Your task to perform on an android device: choose inbox layout in the gmail app Image 0: 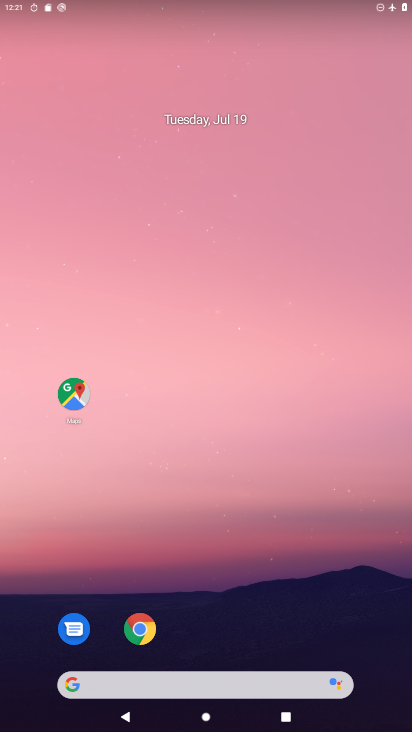
Step 0: drag from (325, 613) to (247, 117)
Your task to perform on an android device: choose inbox layout in the gmail app Image 1: 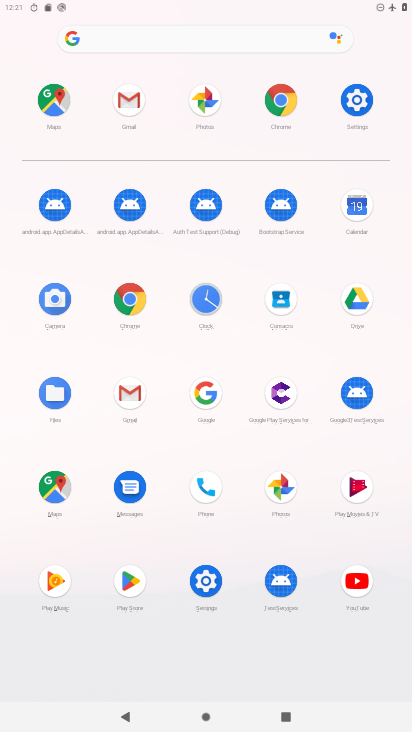
Step 1: click (120, 104)
Your task to perform on an android device: choose inbox layout in the gmail app Image 2: 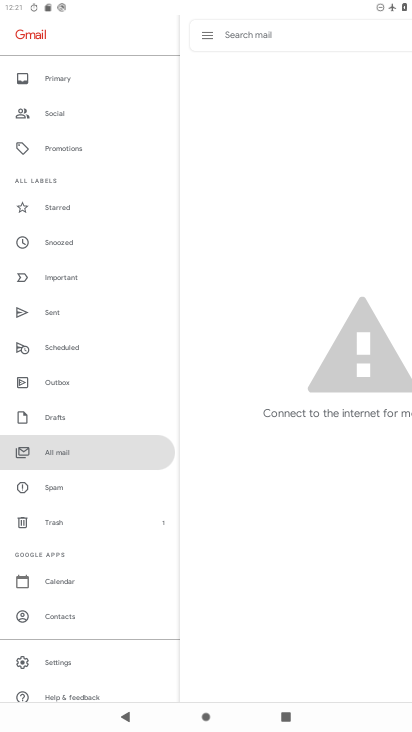
Step 2: click (59, 659)
Your task to perform on an android device: choose inbox layout in the gmail app Image 3: 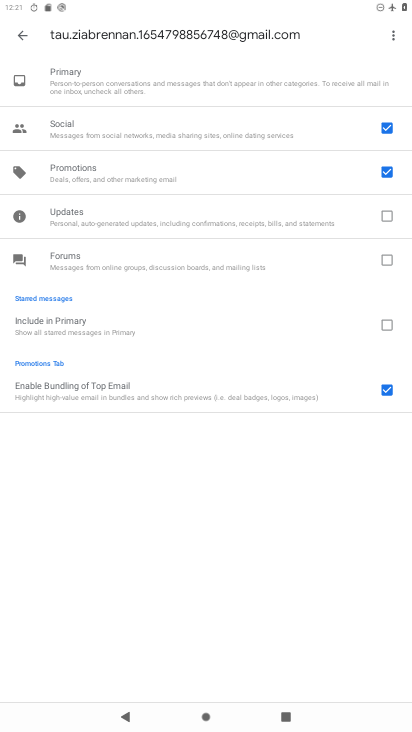
Step 3: click (29, 34)
Your task to perform on an android device: choose inbox layout in the gmail app Image 4: 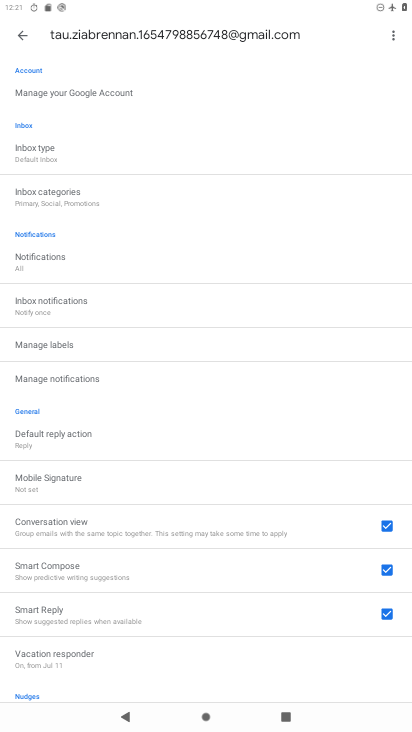
Step 4: click (51, 160)
Your task to perform on an android device: choose inbox layout in the gmail app Image 5: 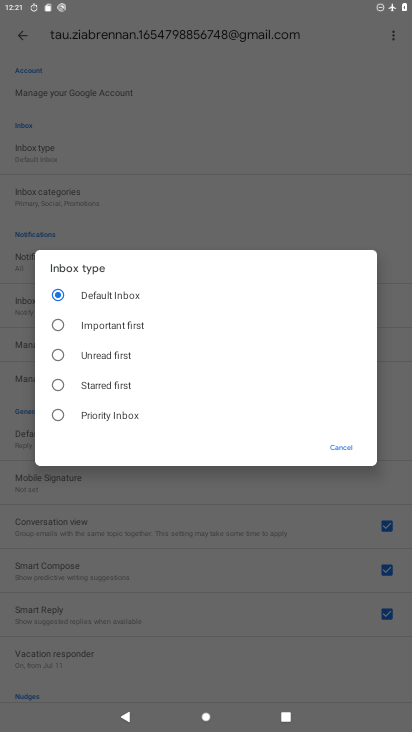
Step 5: task complete